Your task to perform on an android device: Open the calendar app, open the side menu, and click the "Day" option Image 0: 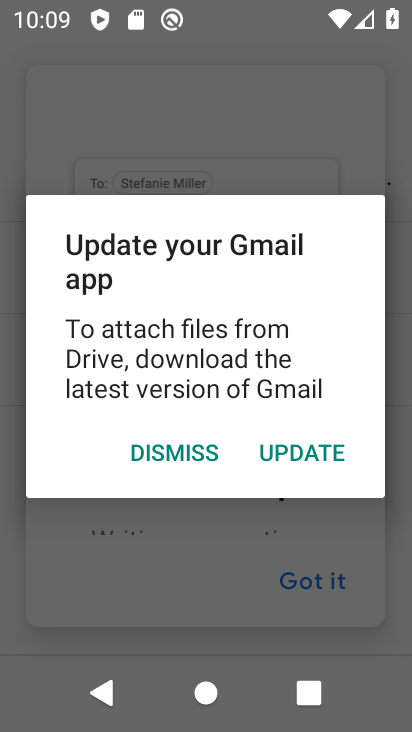
Step 0: press home button
Your task to perform on an android device: Open the calendar app, open the side menu, and click the "Day" option Image 1: 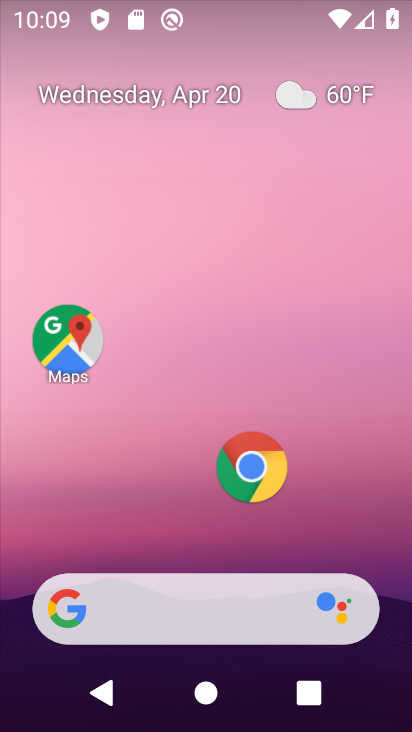
Step 1: drag from (313, 533) to (353, 114)
Your task to perform on an android device: Open the calendar app, open the side menu, and click the "Day" option Image 2: 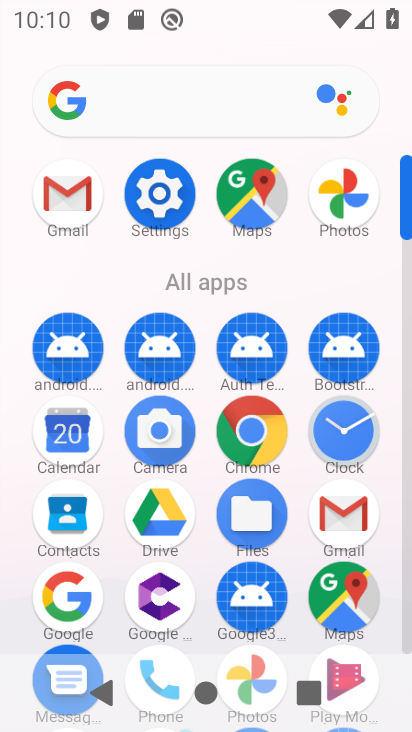
Step 2: click (61, 437)
Your task to perform on an android device: Open the calendar app, open the side menu, and click the "Day" option Image 3: 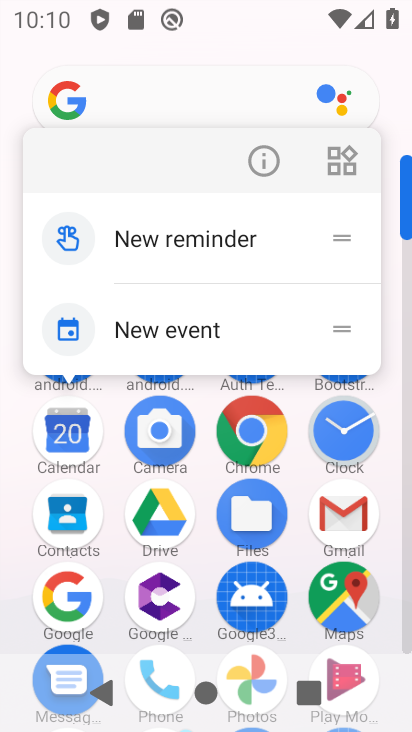
Step 3: click (61, 437)
Your task to perform on an android device: Open the calendar app, open the side menu, and click the "Day" option Image 4: 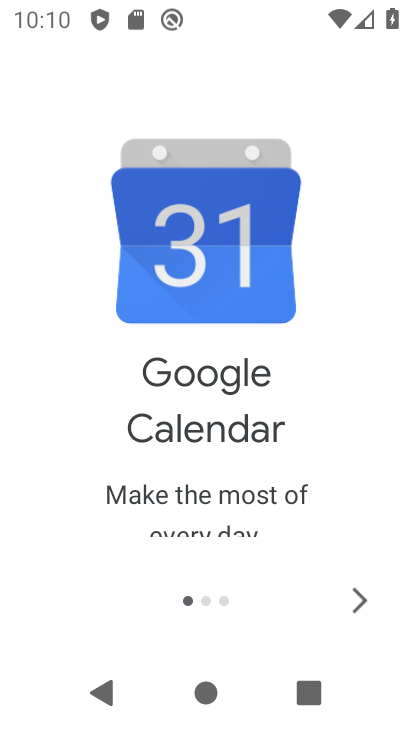
Step 4: click (359, 581)
Your task to perform on an android device: Open the calendar app, open the side menu, and click the "Day" option Image 5: 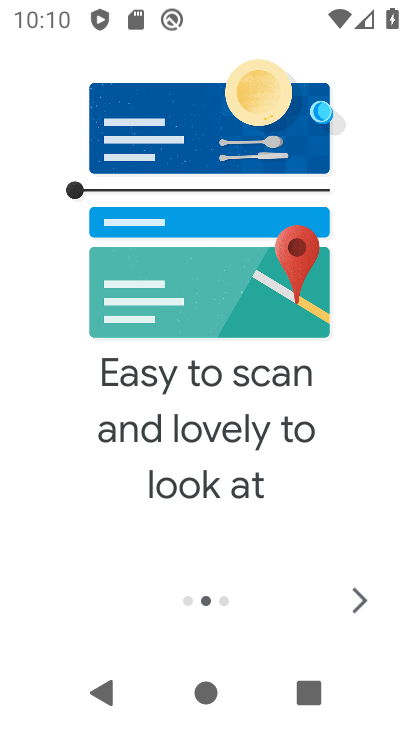
Step 5: click (362, 575)
Your task to perform on an android device: Open the calendar app, open the side menu, and click the "Day" option Image 6: 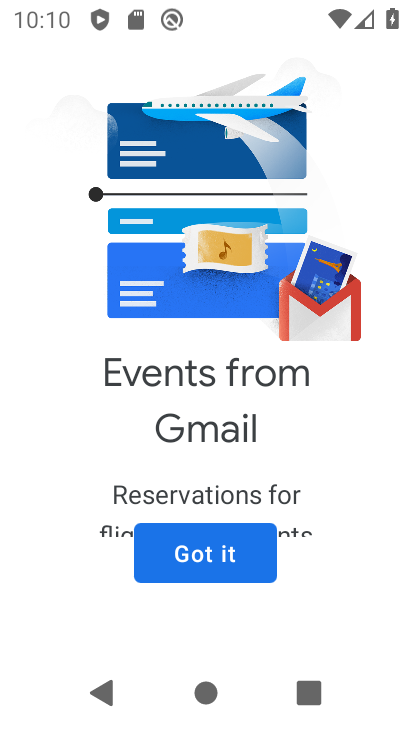
Step 6: click (203, 561)
Your task to perform on an android device: Open the calendar app, open the side menu, and click the "Day" option Image 7: 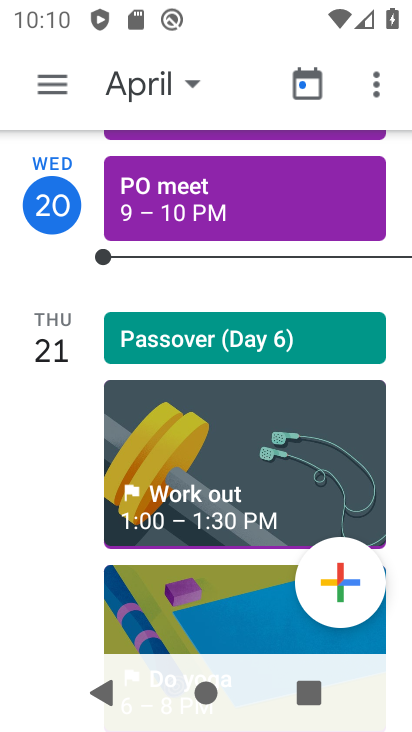
Step 7: click (46, 85)
Your task to perform on an android device: Open the calendar app, open the side menu, and click the "Day" option Image 8: 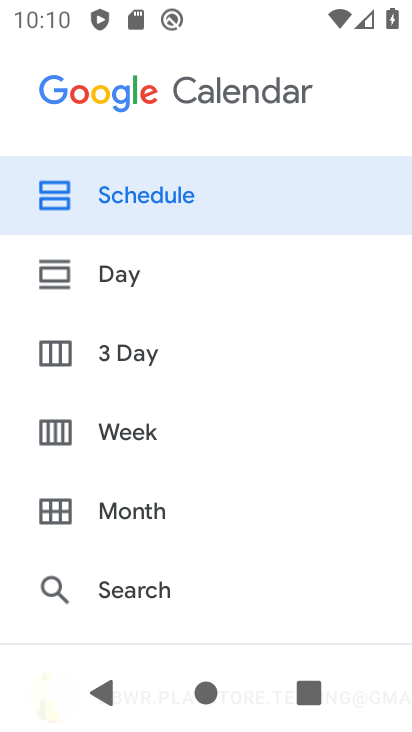
Step 8: click (92, 298)
Your task to perform on an android device: Open the calendar app, open the side menu, and click the "Day" option Image 9: 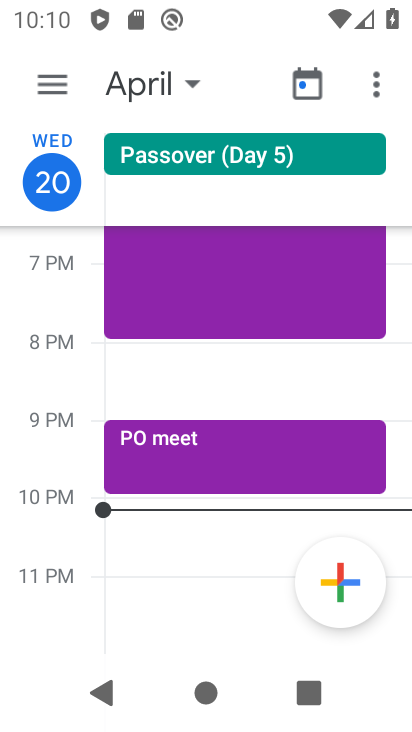
Step 9: task complete